Your task to perform on an android device: Go to settings Image 0: 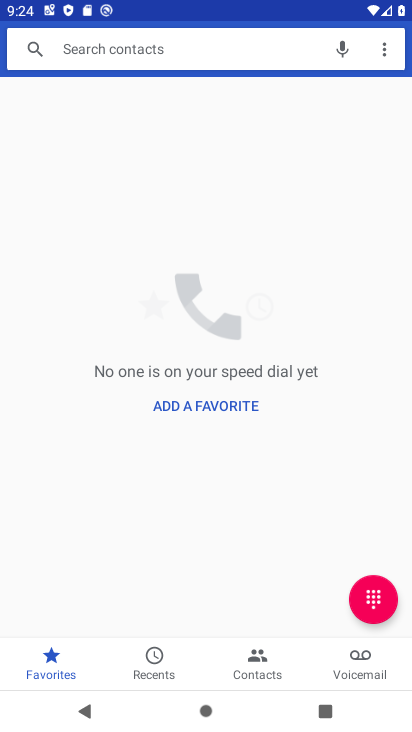
Step 0: press home button
Your task to perform on an android device: Go to settings Image 1: 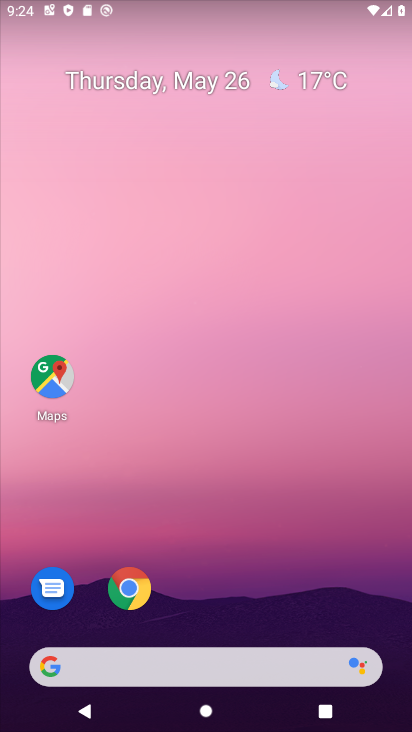
Step 1: drag from (359, 623) to (298, 55)
Your task to perform on an android device: Go to settings Image 2: 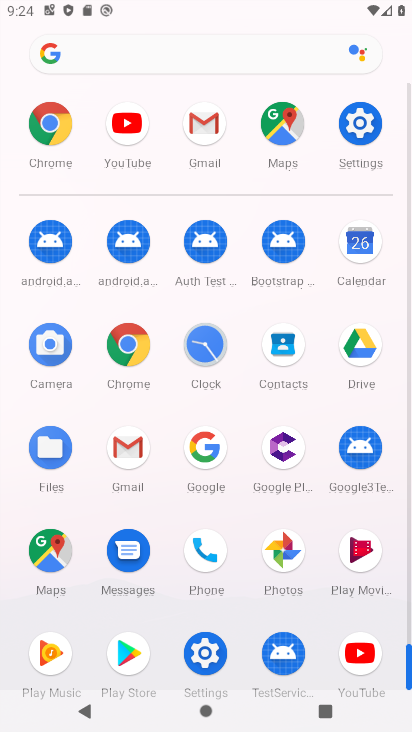
Step 2: click (206, 655)
Your task to perform on an android device: Go to settings Image 3: 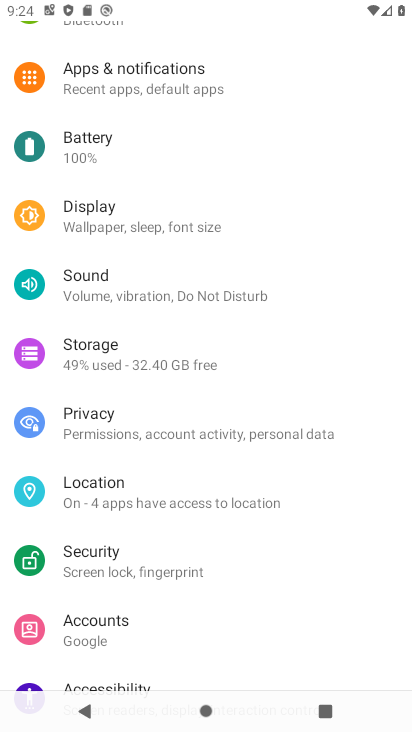
Step 3: task complete